Your task to perform on an android device: set the timer Image 0: 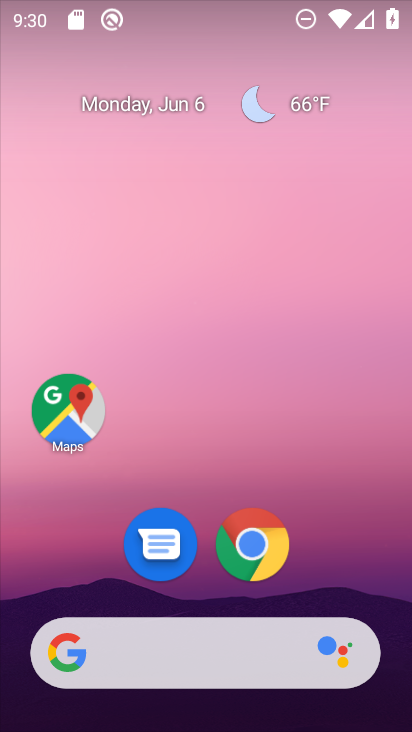
Step 0: drag from (206, 442) to (211, 166)
Your task to perform on an android device: set the timer Image 1: 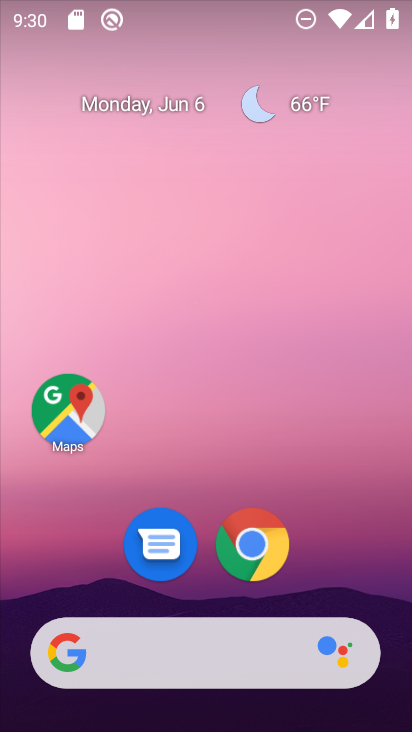
Step 1: drag from (200, 588) to (163, 100)
Your task to perform on an android device: set the timer Image 2: 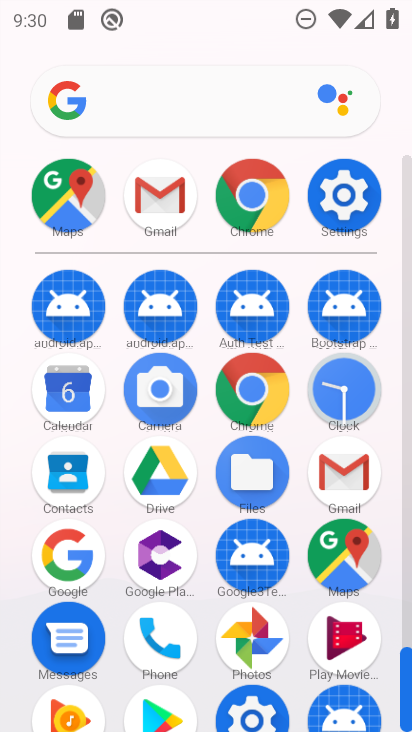
Step 2: click (342, 392)
Your task to perform on an android device: set the timer Image 3: 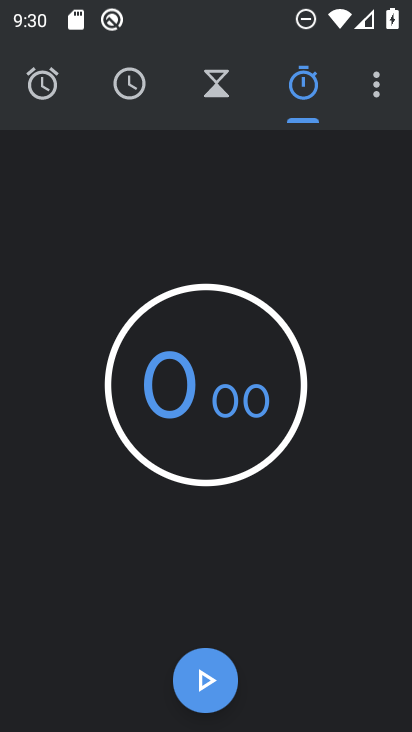
Step 3: click (208, 100)
Your task to perform on an android device: set the timer Image 4: 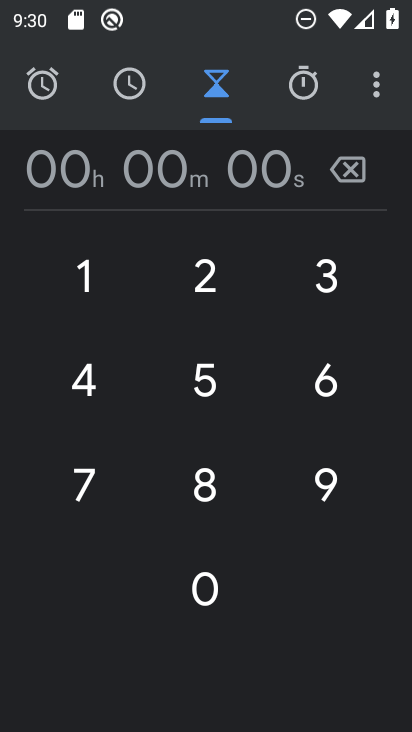
Step 4: click (210, 279)
Your task to perform on an android device: set the timer Image 5: 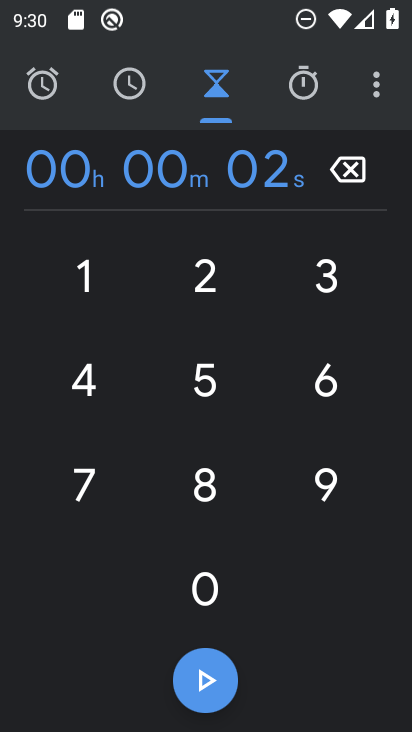
Step 5: click (317, 283)
Your task to perform on an android device: set the timer Image 6: 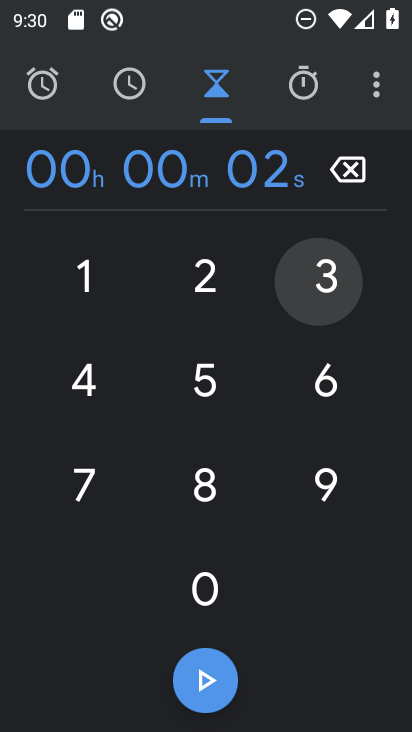
Step 6: click (196, 363)
Your task to perform on an android device: set the timer Image 7: 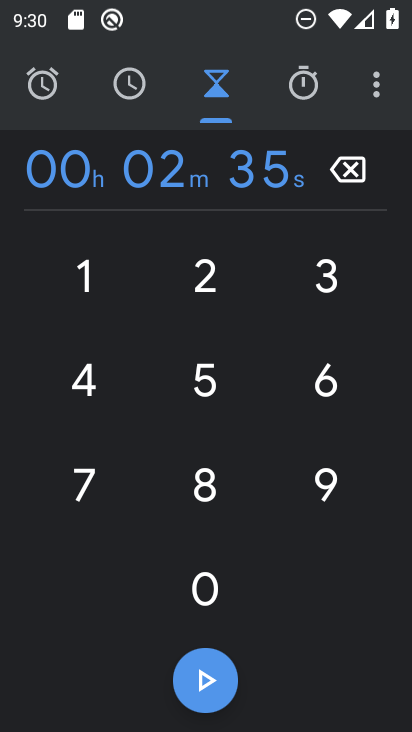
Step 7: task complete